Your task to perform on an android device: Open notification settings Image 0: 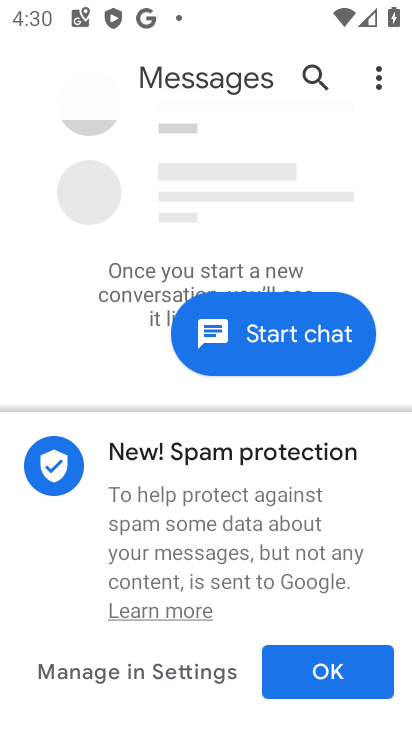
Step 0: press back button
Your task to perform on an android device: Open notification settings Image 1: 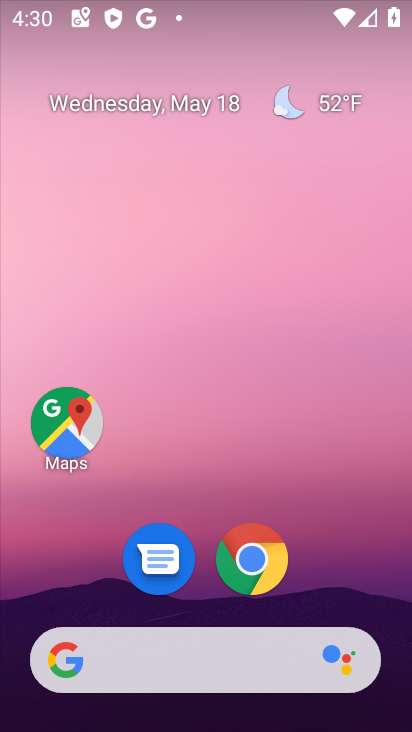
Step 1: drag from (220, 591) to (303, 66)
Your task to perform on an android device: Open notification settings Image 2: 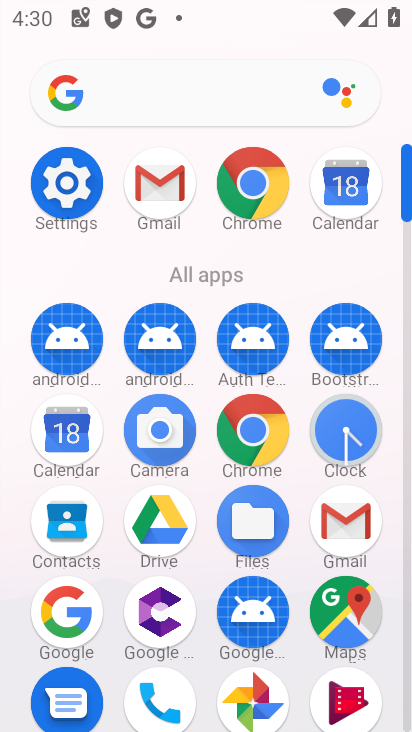
Step 2: click (63, 178)
Your task to perform on an android device: Open notification settings Image 3: 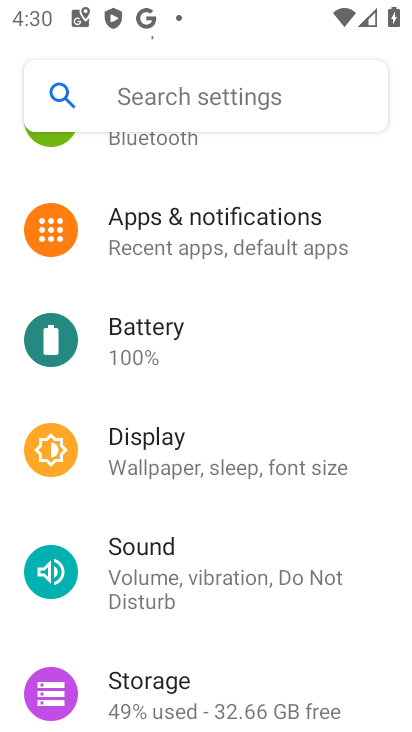
Step 3: drag from (226, 259) to (225, 595)
Your task to perform on an android device: Open notification settings Image 4: 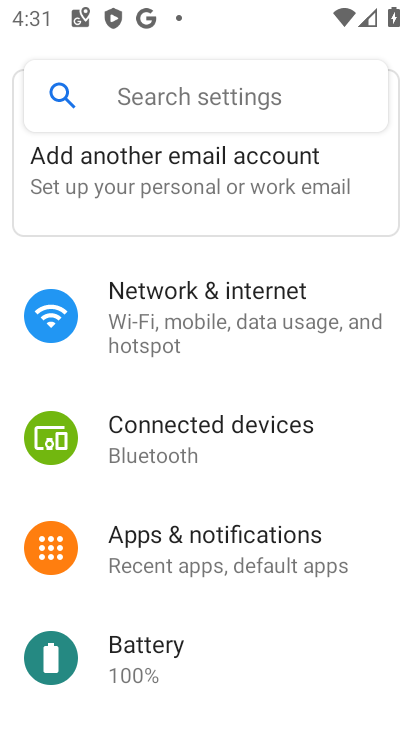
Step 4: click (224, 562)
Your task to perform on an android device: Open notification settings Image 5: 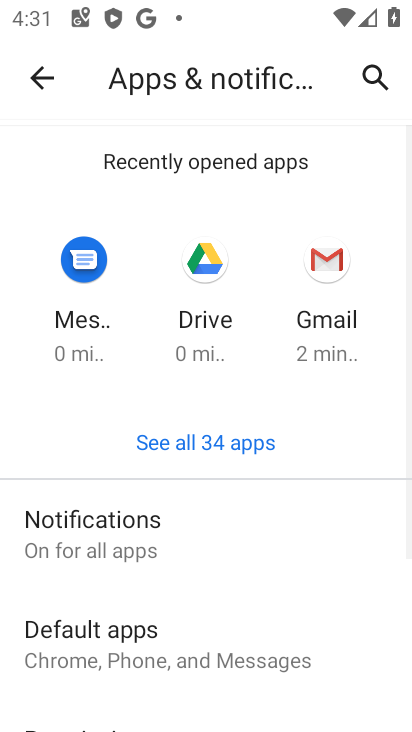
Step 5: task complete